Your task to perform on an android device: Search for seafood restaurants on Google Maps Image 0: 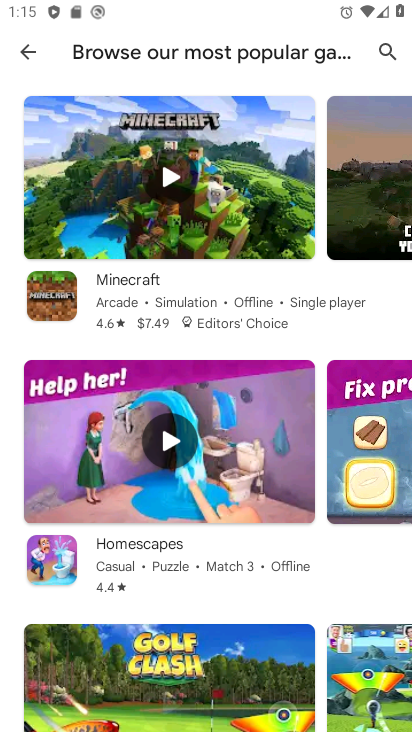
Step 0: press home button
Your task to perform on an android device: Search for seafood restaurants on Google Maps Image 1: 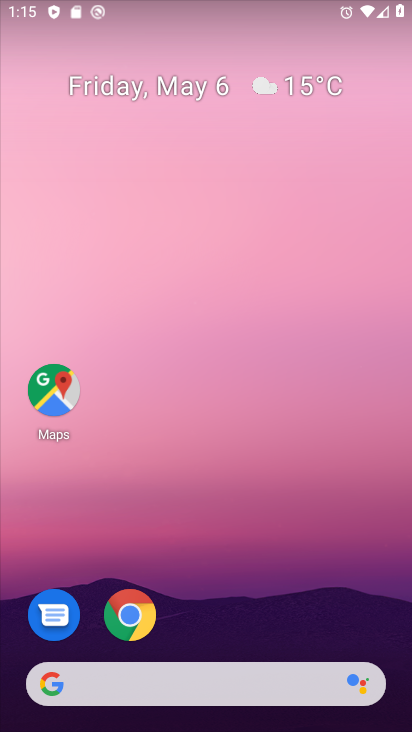
Step 1: drag from (256, 518) to (351, 0)
Your task to perform on an android device: Search for seafood restaurants on Google Maps Image 2: 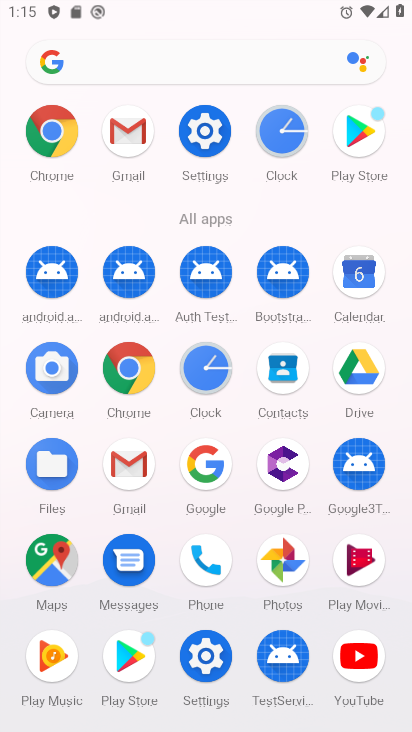
Step 2: click (53, 560)
Your task to perform on an android device: Search for seafood restaurants on Google Maps Image 3: 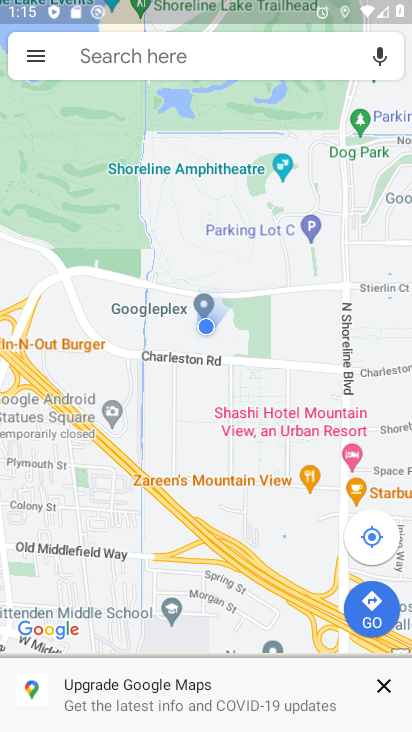
Step 3: click (284, 38)
Your task to perform on an android device: Search for seafood restaurants on Google Maps Image 4: 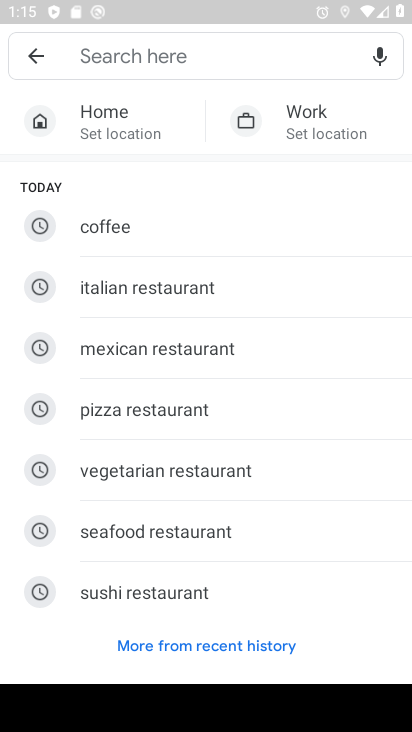
Step 4: click (159, 524)
Your task to perform on an android device: Search for seafood restaurants on Google Maps Image 5: 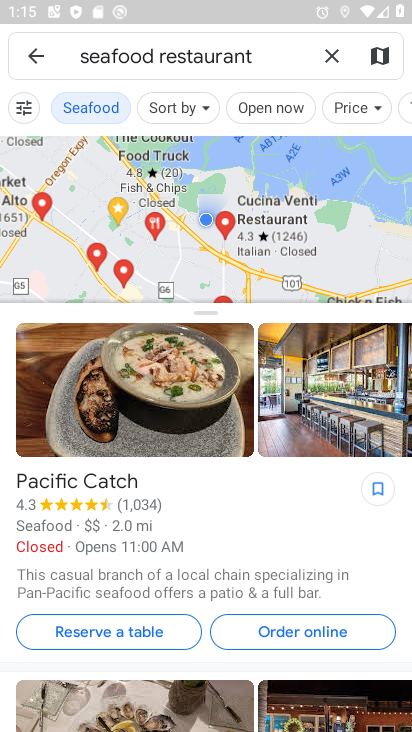
Step 5: task complete